Your task to perform on an android device: Open calendar and show me the fourth week of next month Image 0: 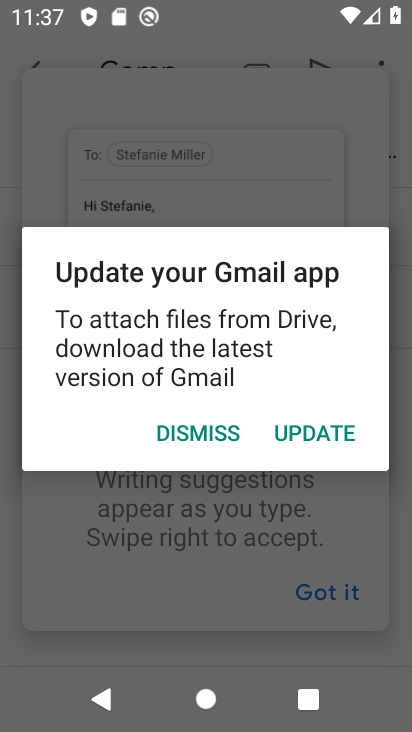
Step 0: press back button
Your task to perform on an android device: Open calendar and show me the fourth week of next month Image 1: 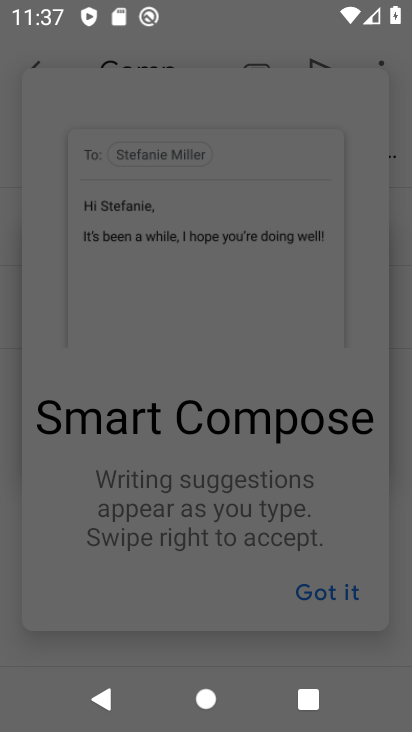
Step 1: press back button
Your task to perform on an android device: Open calendar and show me the fourth week of next month Image 2: 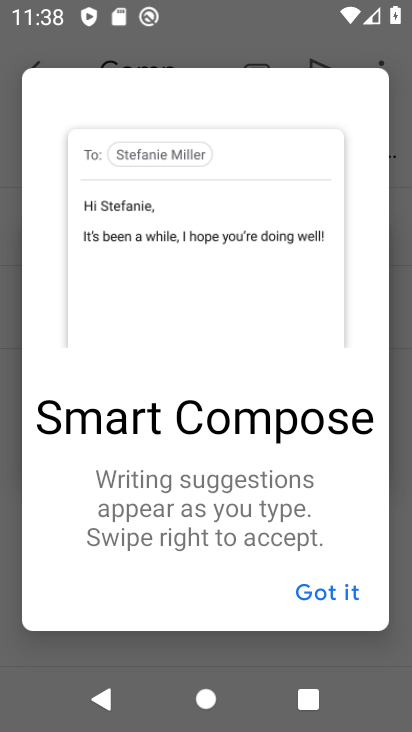
Step 2: press home button
Your task to perform on an android device: Open calendar and show me the fourth week of next month Image 3: 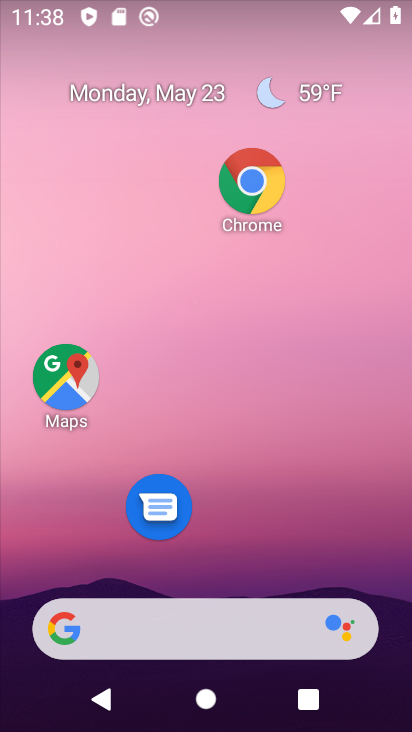
Step 3: drag from (220, 541) to (244, 221)
Your task to perform on an android device: Open calendar and show me the fourth week of next month Image 4: 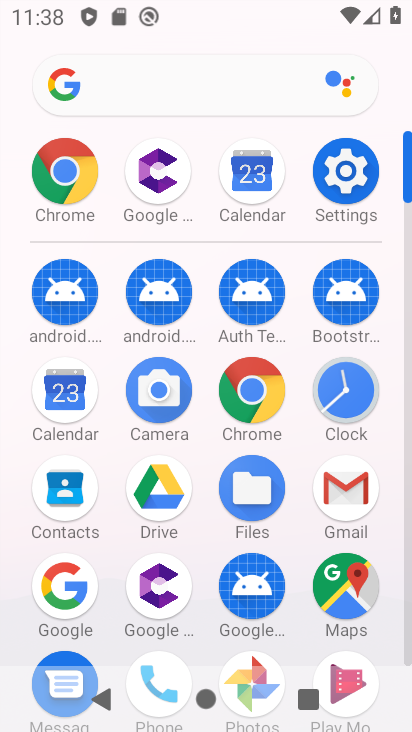
Step 4: click (69, 386)
Your task to perform on an android device: Open calendar and show me the fourth week of next month Image 5: 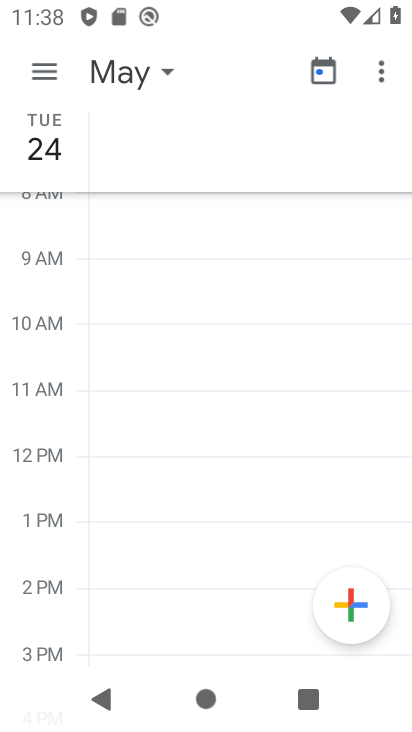
Step 5: click (46, 56)
Your task to perform on an android device: Open calendar and show me the fourth week of next month Image 6: 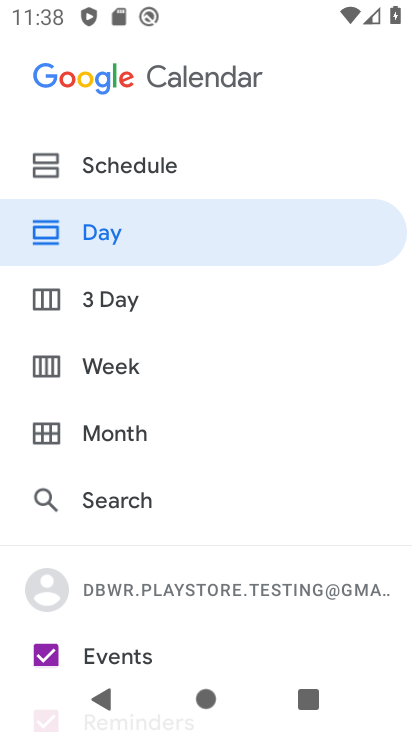
Step 6: click (126, 431)
Your task to perform on an android device: Open calendar and show me the fourth week of next month Image 7: 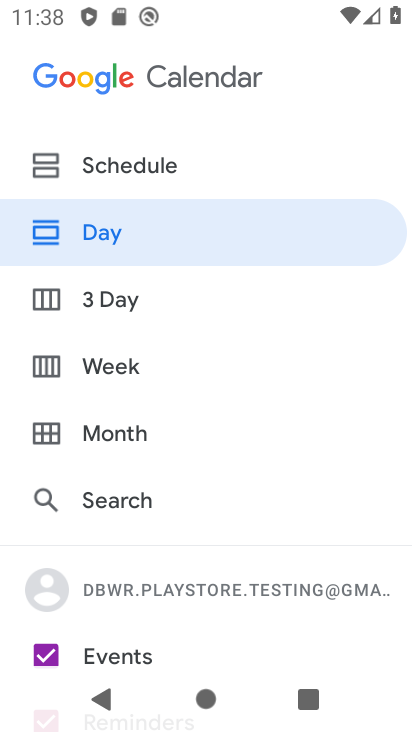
Step 7: click (112, 421)
Your task to perform on an android device: Open calendar and show me the fourth week of next month Image 8: 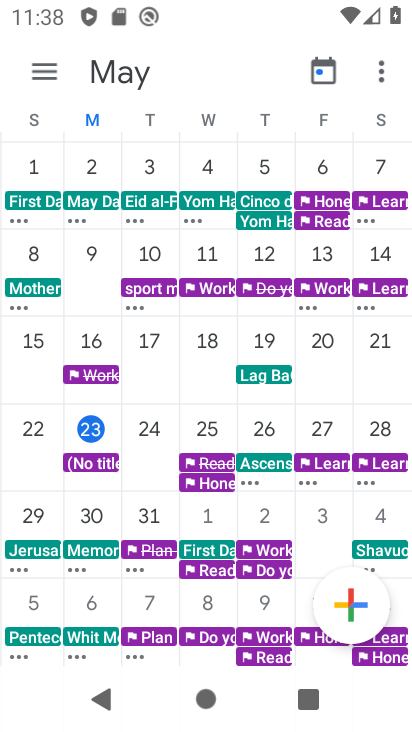
Step 8: task complete